Your task to perform on an android device: create a new album in the google photos Image 0: 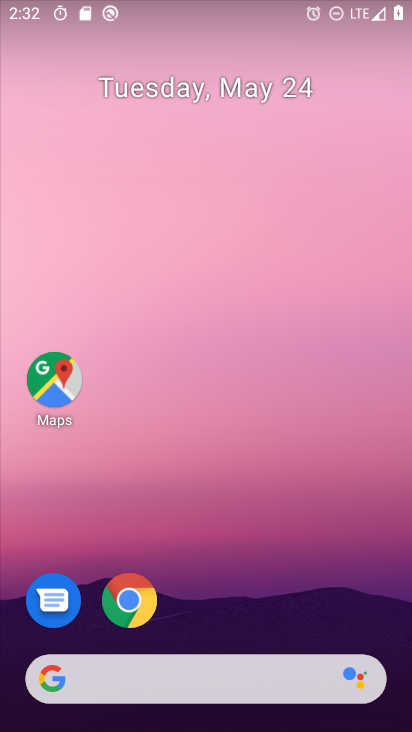
Step 0: drag from (307, 594) to (292, 115)
Your task to perform on an android device: create a new album in the google photos Image 1: 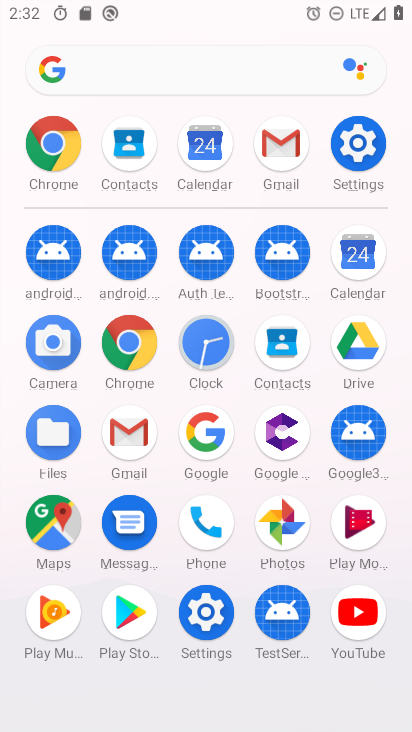
Step 1: click (278, 522)
Your task to perform on an android device: create a new album in the google photos Image 2: 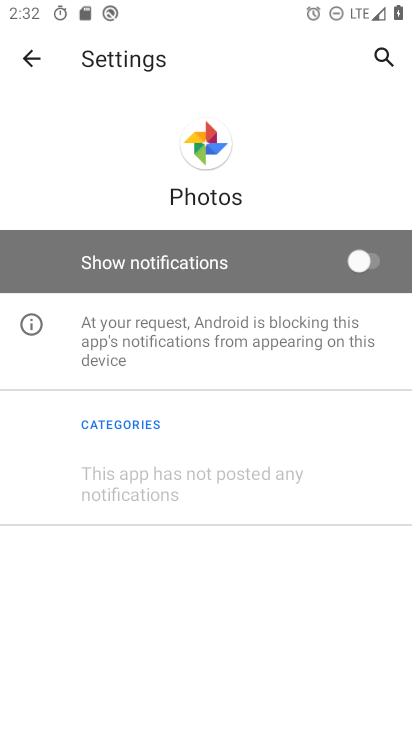
Step 2: click (32, 64)
Your task to perform on an android device: create a new album in the google photos Image 3: 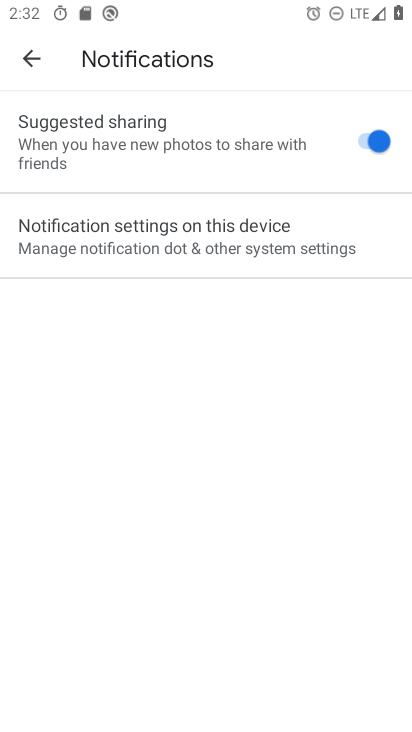
Step 3: click (50, 41)
Your task to perform on an android device: create a new album in the google photos Image 4: 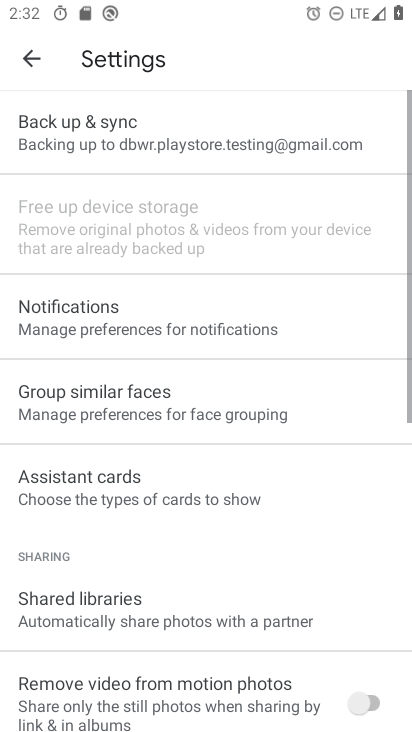
Step 4: click (45, 54)
Your task to perform on an android device: create a new album in the google photos Image 5: 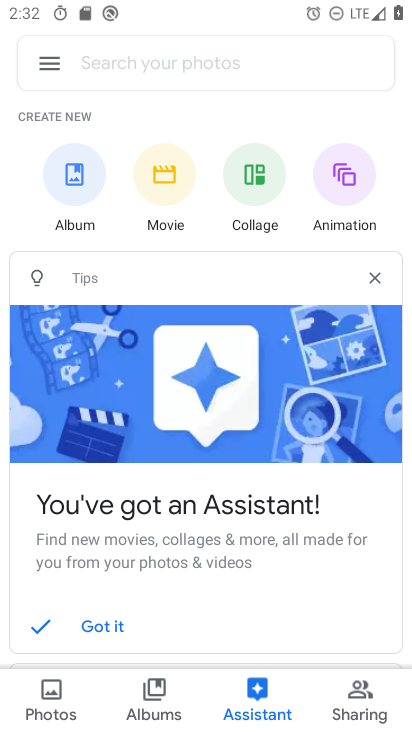
Step 5: click (149, 694)
Your task to perform on an android device: create a new album in the google photos Image 6: 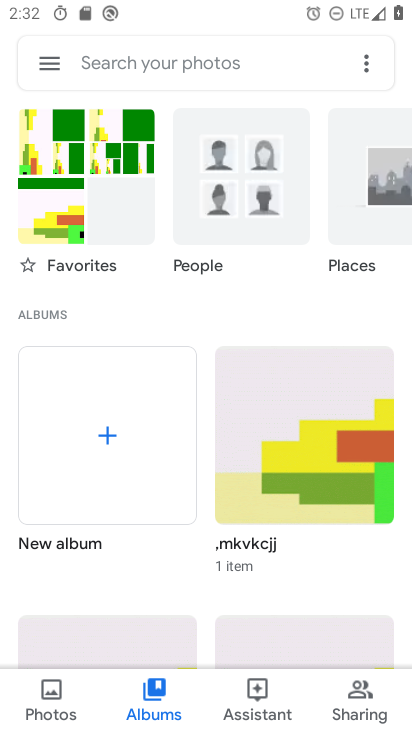
Step 6: click (147, 402)
Your task to perform on an android device: create a new album in the google photos Image 7: 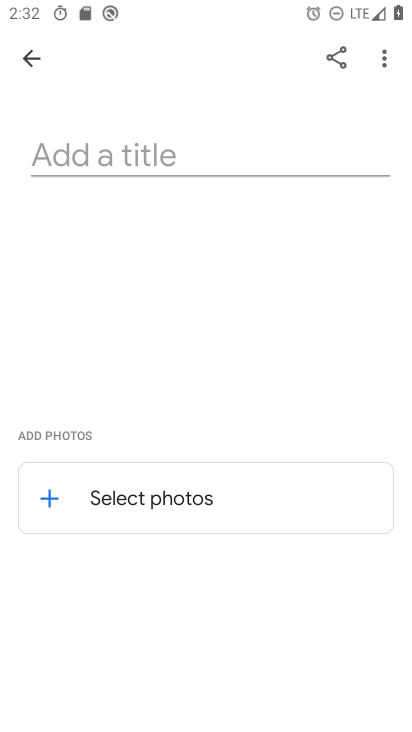
Step 7: click (194, 160)
Your task to perform on an android device: create a new album in the google photos Image 8: 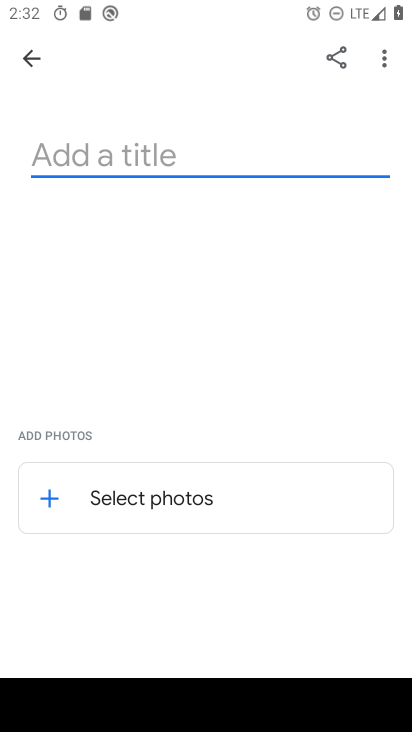
Step 8: type "holiday"
Your task to perform on an android device: create a new album in the google photos Image 9: 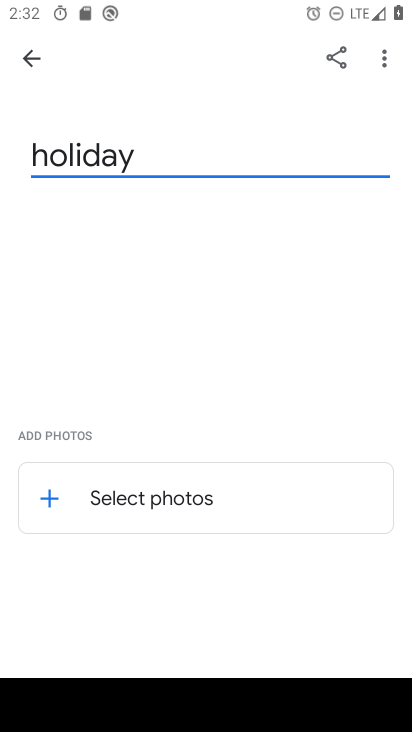
Step 9: click (188, 493)
Your task to perform on an android device: create a new album in the google photos Image 10: 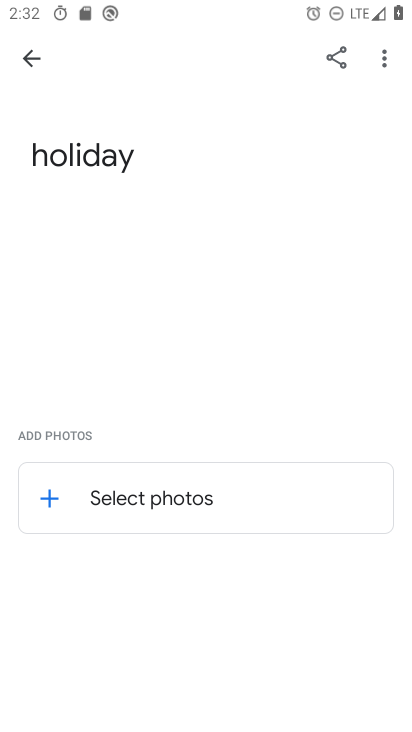
Step 10: click (156, 492)
Your task to perform on an android device: create a new album in the google photos Image 11: 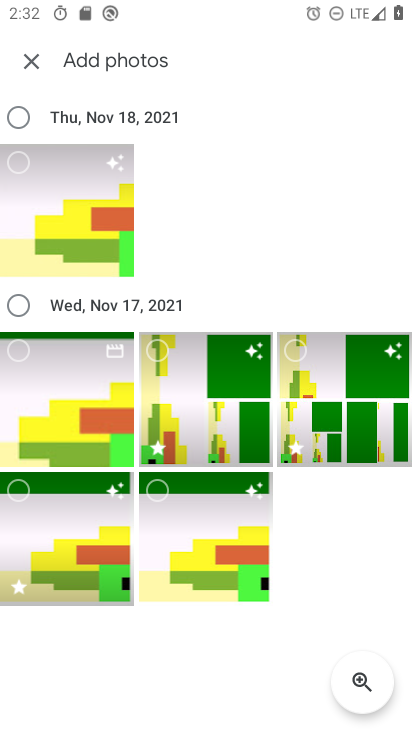
Step 11: click (95, 205)
Your task to perform on an android device: create a new album in the google photos Image 12: 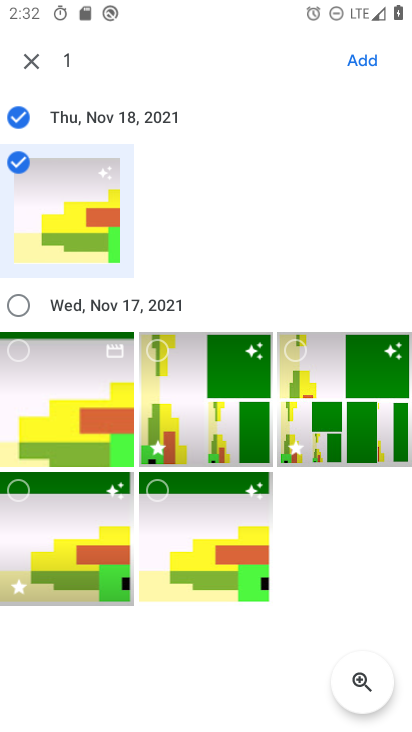
Step 12: click (345, 63)
Your task to perform on an android device: create a new album in the google photos Image 13: 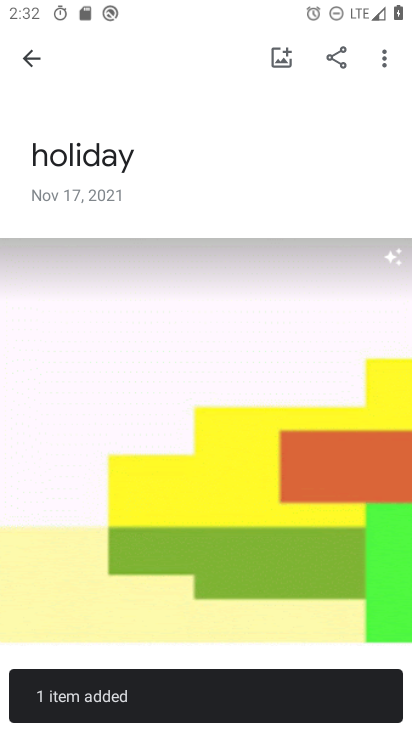
Step 13: task complete